Your task to perform on an android device: find which apps use the phone's location Image 0: 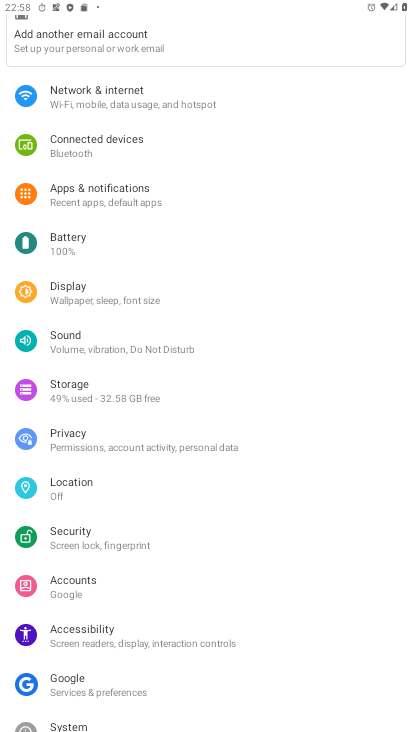
Step 0: press home button
Your task to perform on an android device: find which apps use the phone's location Image 1: 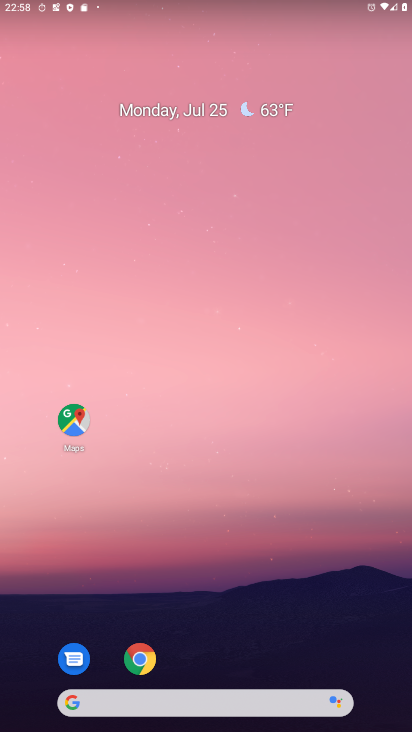
Step 1: drag from (229, 729) to (228, 95)
Your task to perform on an android device: find which apps use the phone's location Image 2: 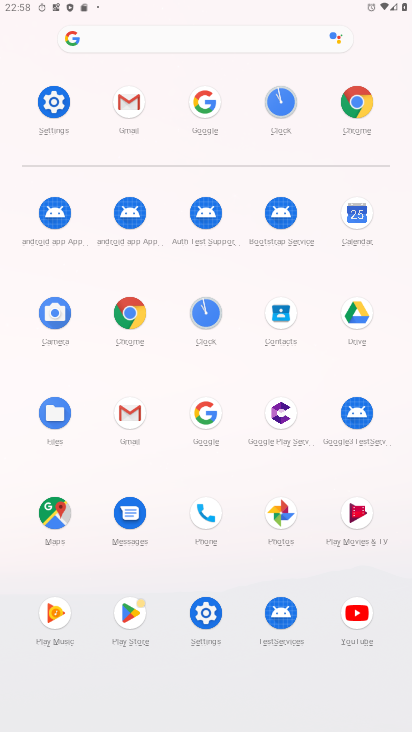
Step 2: click (46, 100)
Your task to perform on an android device: find which apps use the phone's location Image 3: 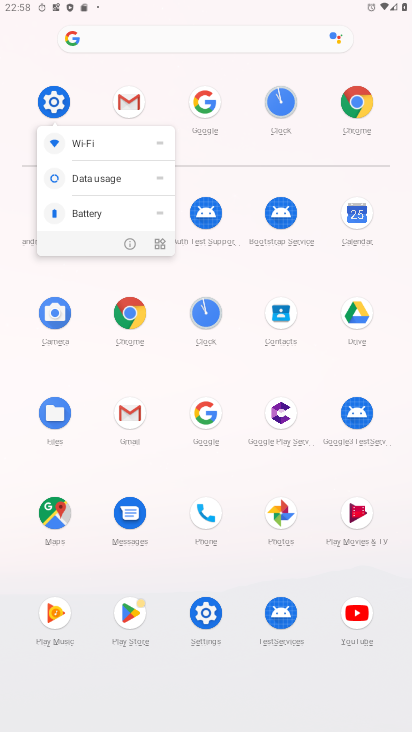
Step 3: click (46, 101)
Your task to perform on an android device: find which apps use the phone's location Image 4: 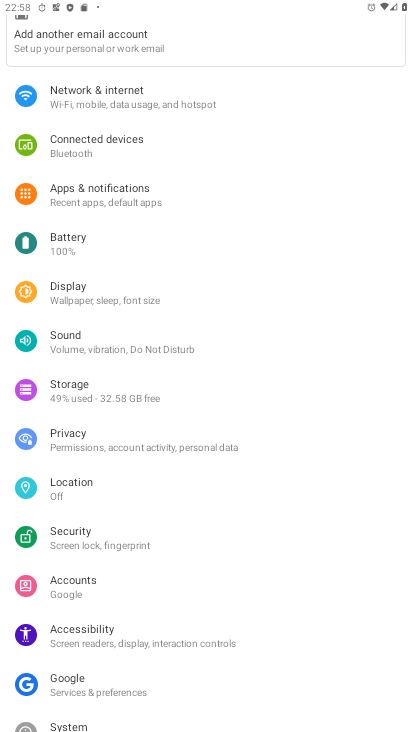
Step 4: click (65, 481)
Your task to perform on an android device: find which apps use the phone's location Image 5: 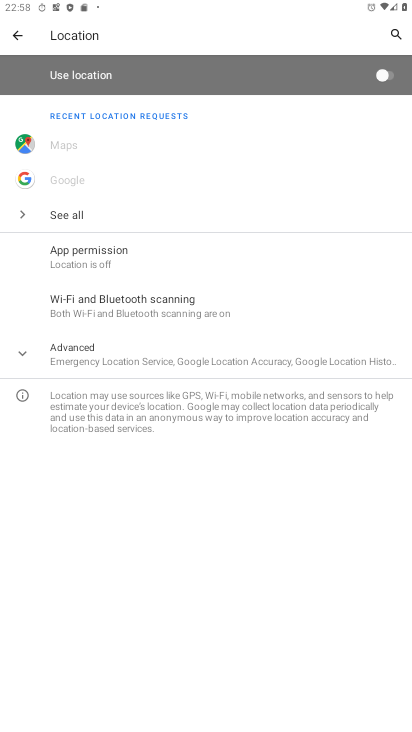
Step 5: click (83, 253)
Your task to perform on an android device: find which apps use the phone's location Image 6: 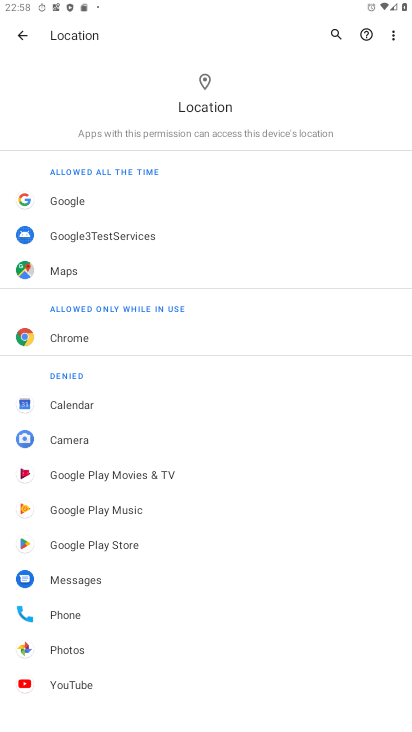
Step 6: task complete